Your task to perform on an android device: turn notification dots on Image 0: 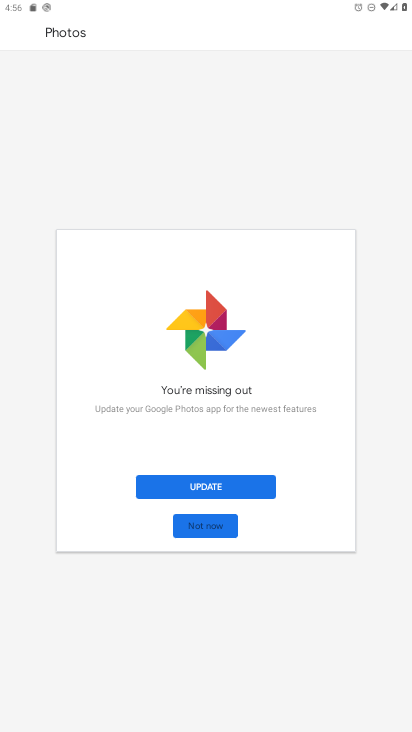
Step 0: press home button
Your task to perform on an android device: turn notification dots on Image 1: 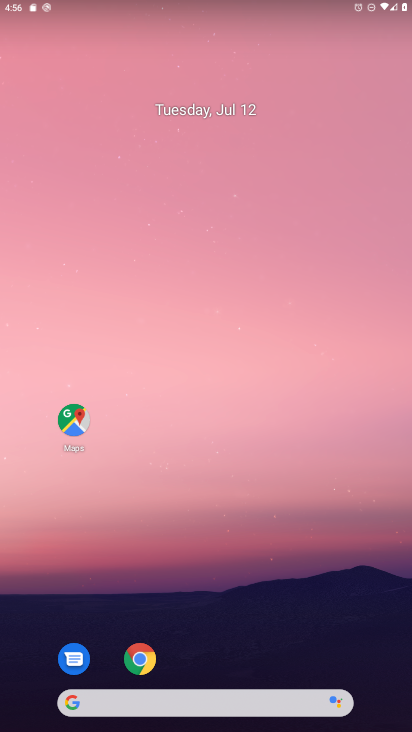
Step 1: drag from (186, 445) to (209, 114)
Your task to perform on an android device: turn notification dots on Image 2: 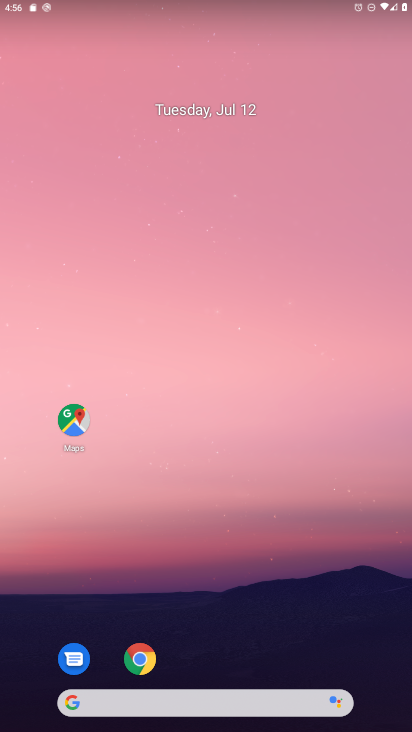
Step 2: drag from (206, 570) to (234, 132)
Your task to perform on an android device: turn notification dots on Image 3: 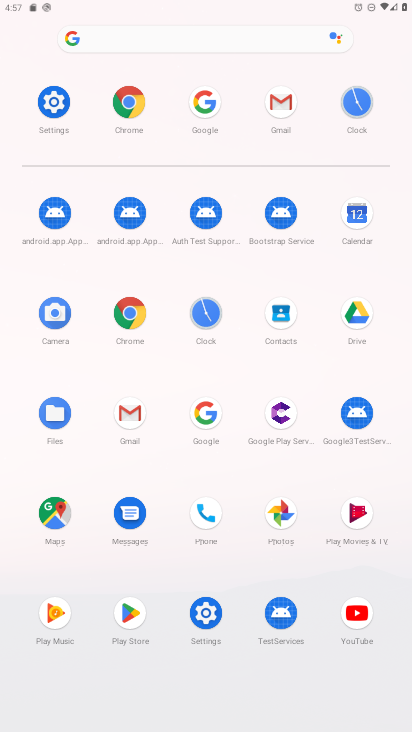
Step 3: click (51, 104)
Your task to perform on an android device: turn notification dots on Image 4: 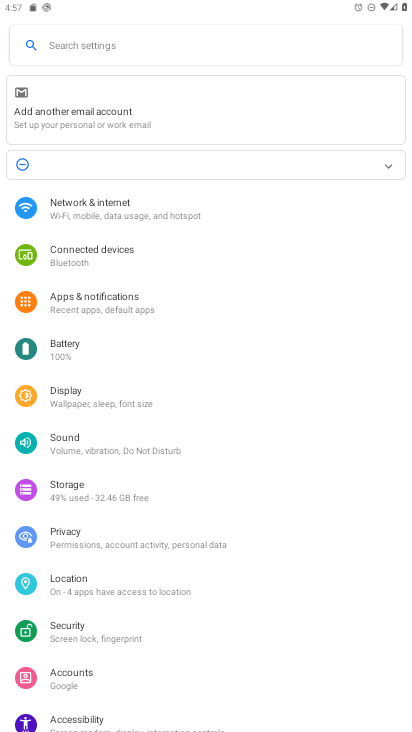
Step 4: click (83, 315)
Your task to perform on an android device: turn notification dots on Image 5: 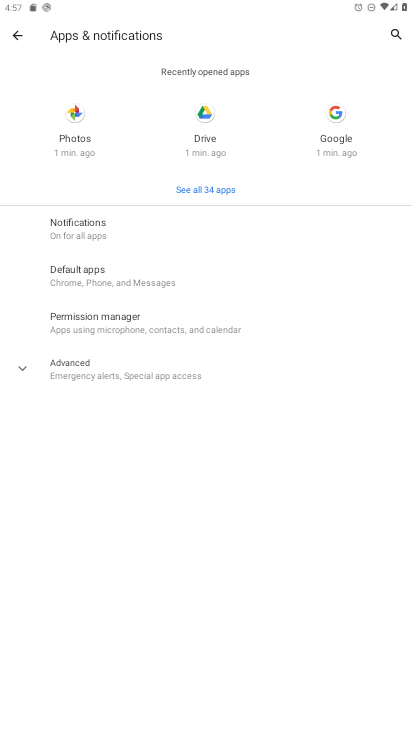
Step 5: click (50, 371)
Your task to perform on an android device: turn notification dots on Image 6: 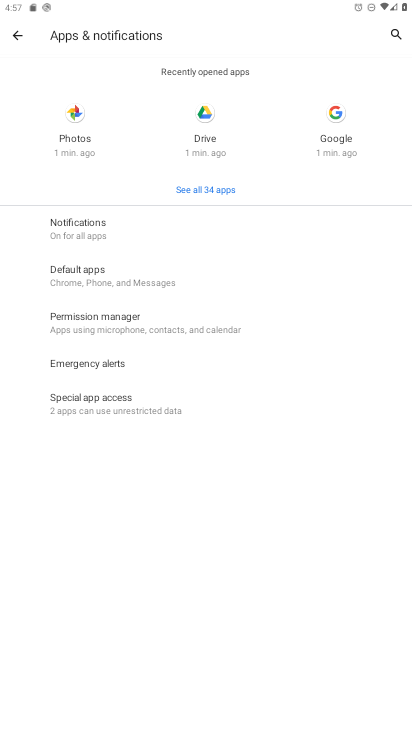
Step 6: click (75, 232)
Your task to perform on an android device: turn notification dots on Image 7: 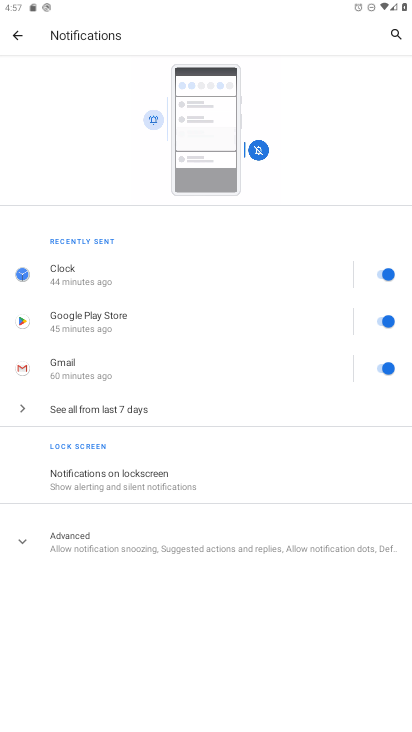
Step 7: click (68, 543)
Your task to perform on an android device: turn notification dots on Image 8: 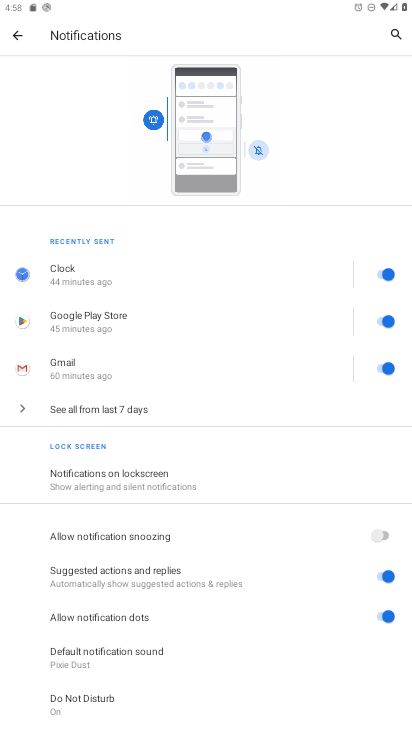
Step 8: task complete